Your task to perform on an android device: change notification settings in the gmail app Image 0: 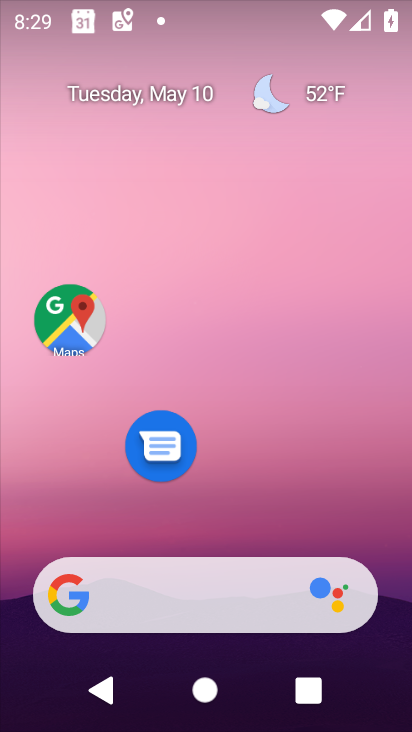
Step 0: drag from (172, 534) to (93, 26)
Your task to perform on an android device: change notification settings in the gmail app Image 1: 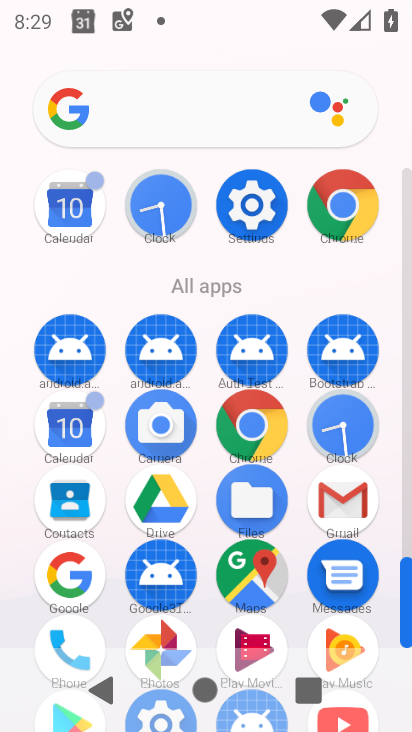
Step 1: click (335, 503)
Your task to perform on an android device: change notification settings in the gmail app Image 2: 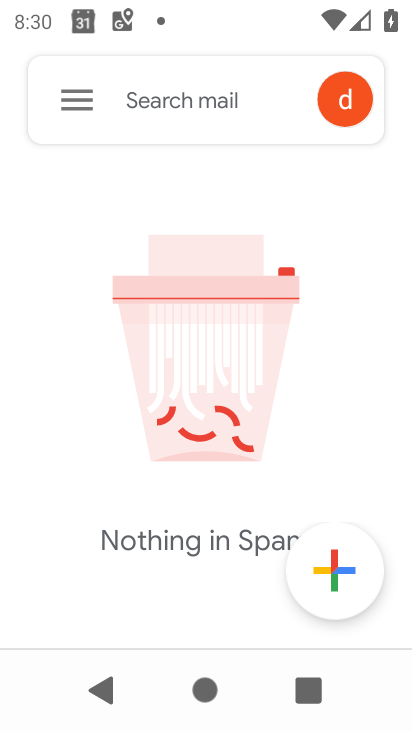
Step 2: click (74, 78)
Your task to perform on an android device: change notification settings in the gmail app Image 3: 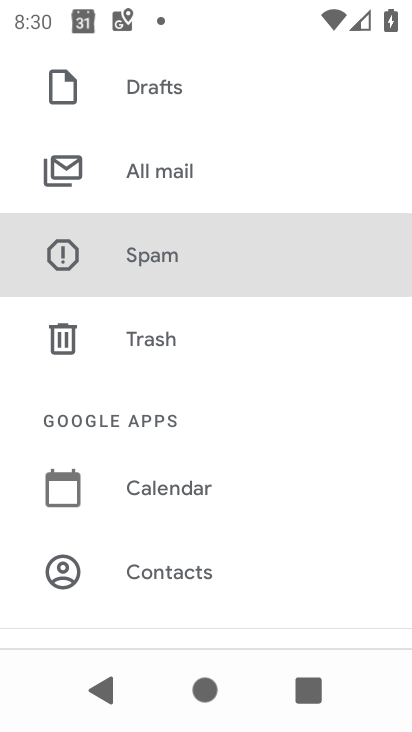
Step 3: drag from (187, 529) to (181, 65)
Your task to perform on an android device: change notification settings in the gmail app Image 4: 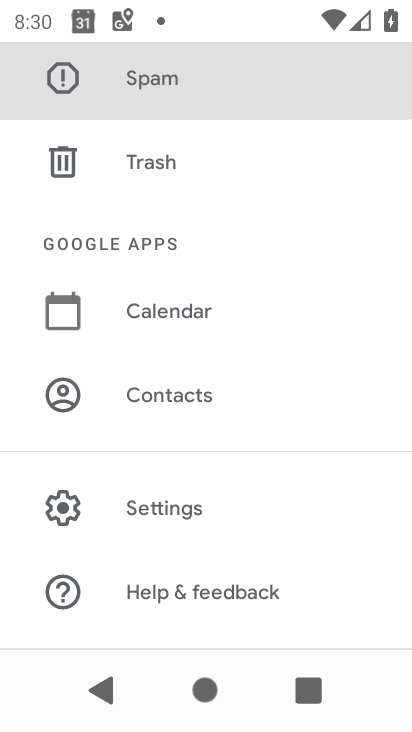
Step 4: click (139, 561)
Your task to perform on an android device: change notification settings in the gmail app Image 5: 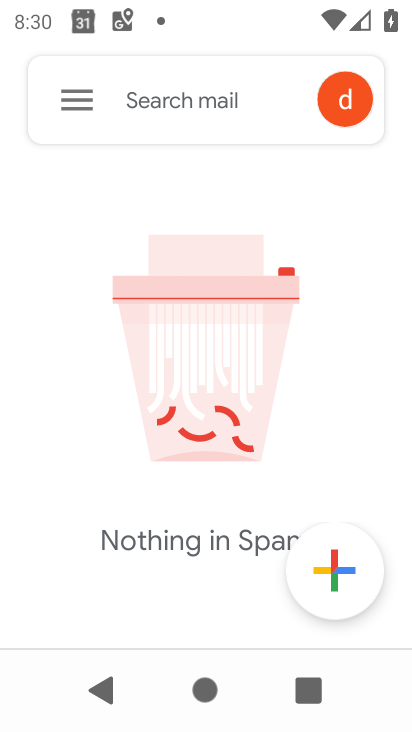
Step 5: click (63, 106)
Your task to perform on an android device: change notification settings in the gmail app Image 6: 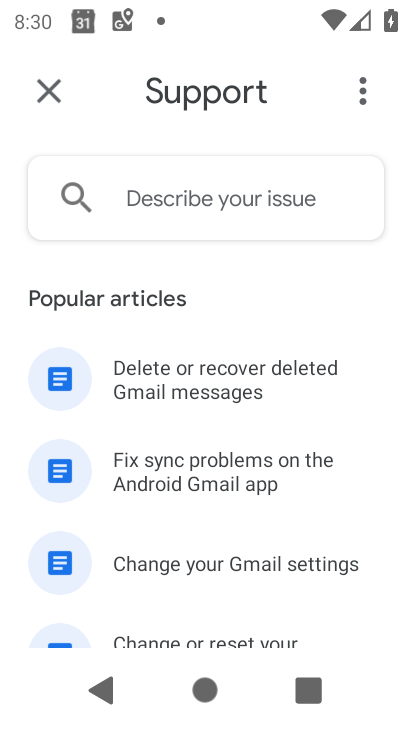
Step 6: click (54, 94)
Your task to perform on an android device: change notification settings in the gmail app Image 7: 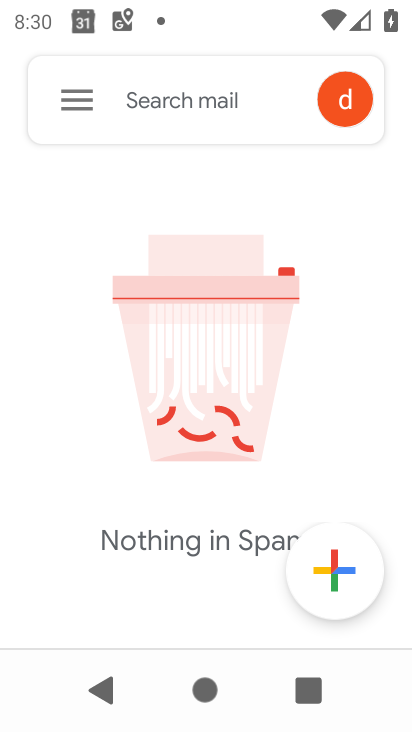
Step 7: click (61, 92)
Your task to perform on an android device: change notification settings in the gmail app Image 8: 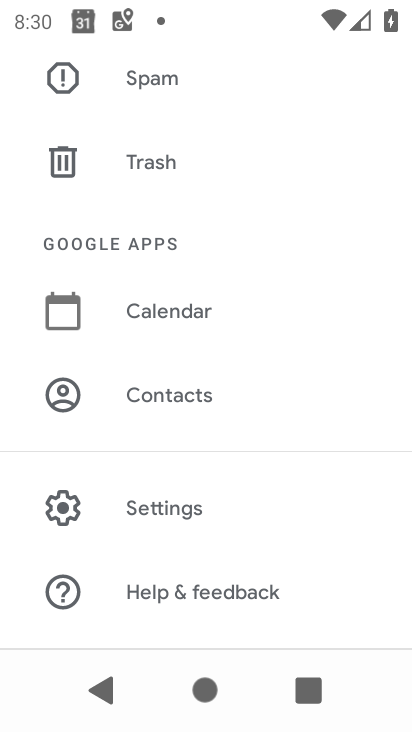
Step 8: click (153, 494)
Your task to perform on an android device: change notification settings in the gmail app Image 9: 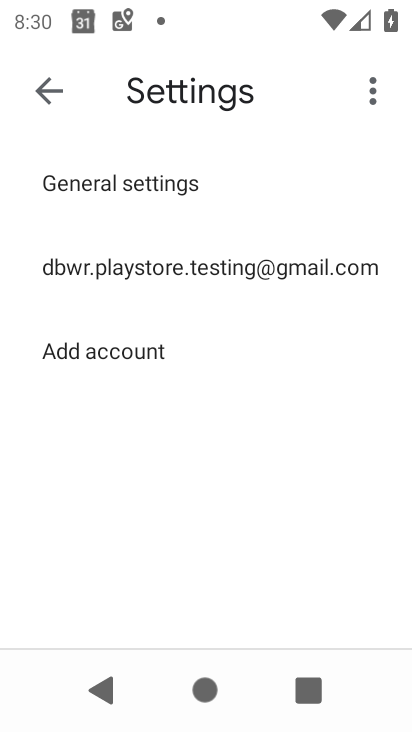
Step 9: click (132, 173)
Your task to perform on an android device: change notification settings in the gmail app Image 10: 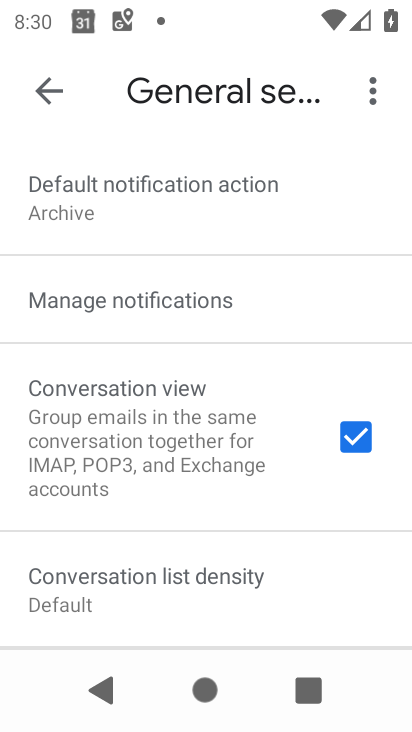
Step 10: click (225, 299)
Your task to perform on an android device: change notification settings in the gmail app Image 11: 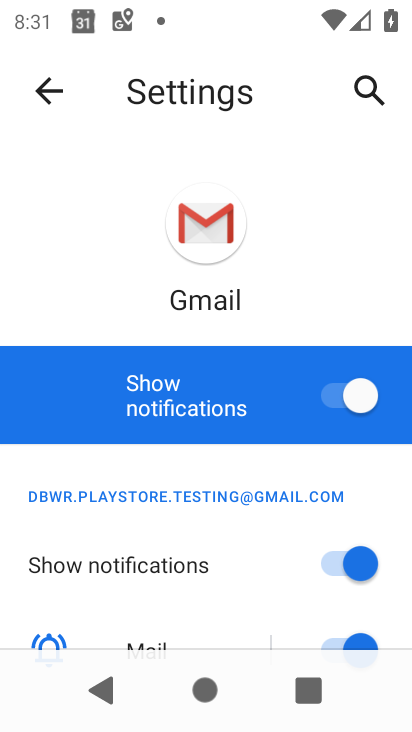
Step 11: click (319, 395)
Your task to perform on an android device: change notification settings in the gmail app Image 12: 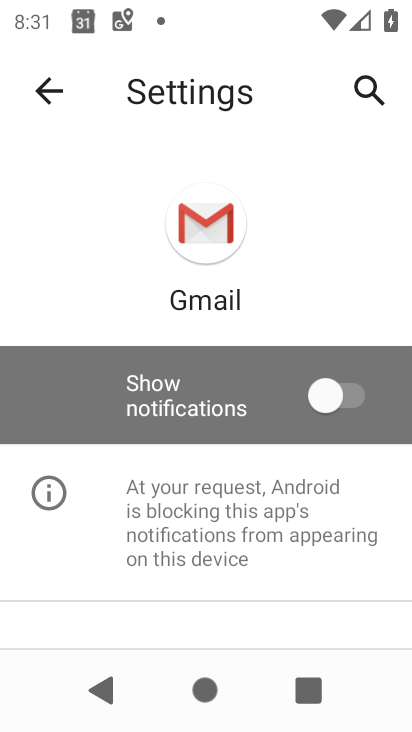
Step 12: task complete